Your task to perform on an android device: Is it going to rain this weekend? Image 0: 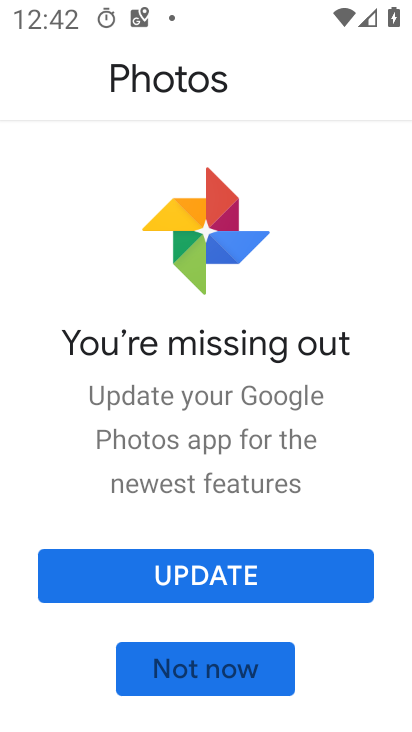
Step 0: press home button
Your task to perform on an android device: Is it going to rain this weekend? Image 1: 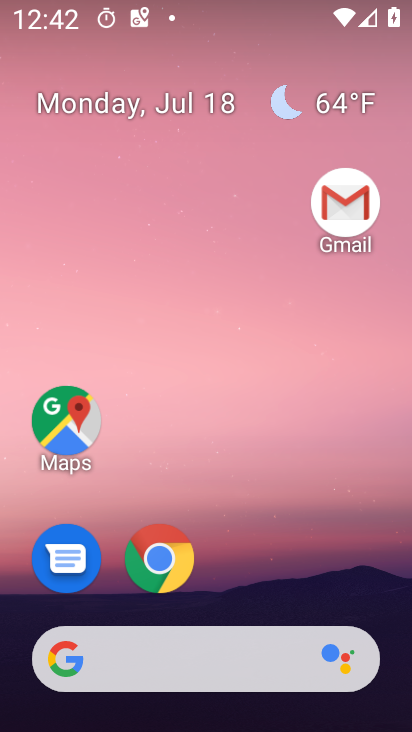
Step 1: click (255, 665)
Your task to perform on an android device: Is it going to rain this weekend? Image 2: 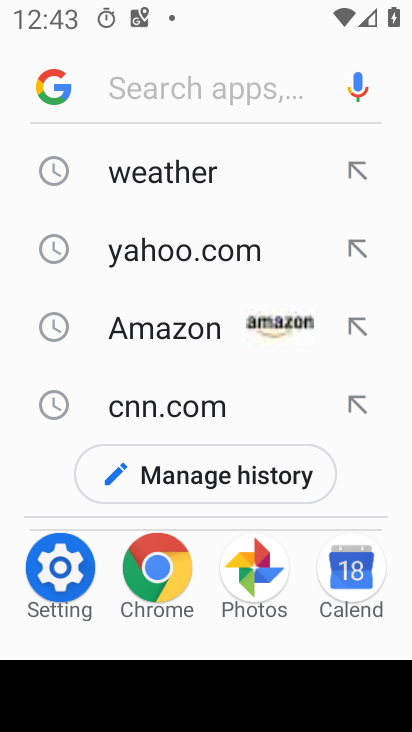
Step 2: click (211, 179)
Your task to perform on an android device: Is it going to rain this weekend? Image 3: 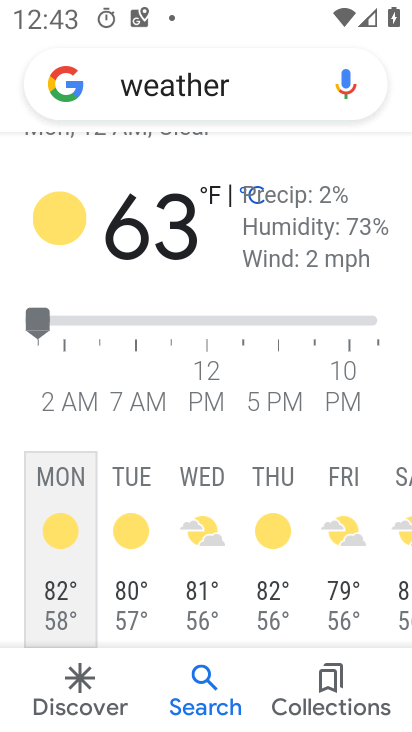
Step 3: click (395, 484)
Your task to perform on an android device: Is it going to rain this weekend? Image 4: 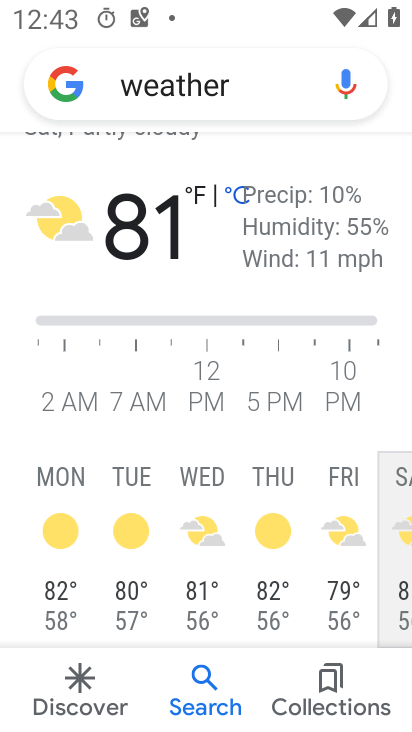
Step 4: task complete